Your task to perform on an android device: add a contact Image 0: 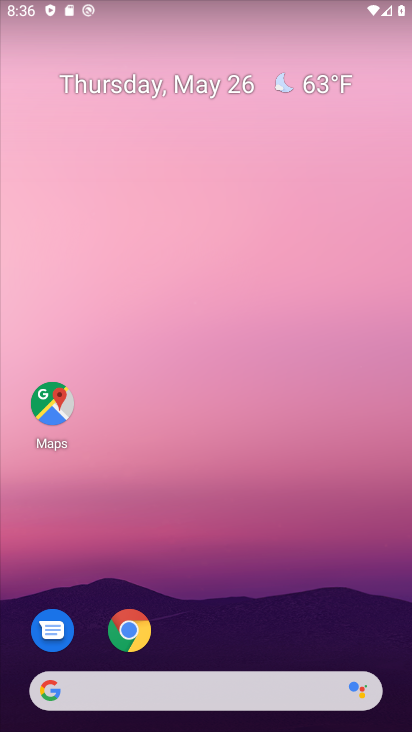
Step 0: drag from (289, 621) to (97, 86)
Your task to perform on an android device: add a contact Image 1: 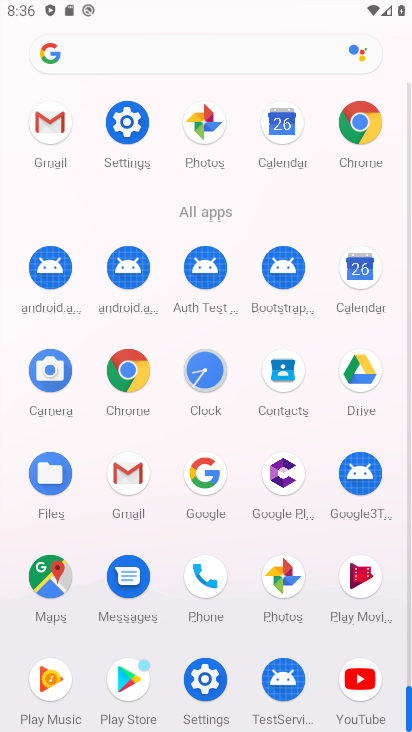
Step 1: click (281, 382)
Your task to perform on an android device: add a contact Image 2: 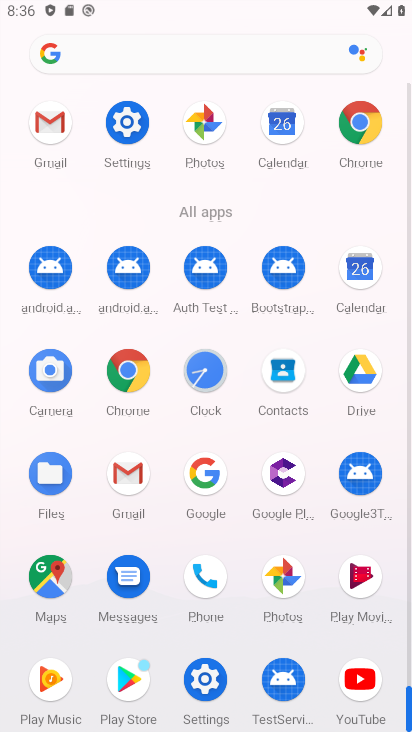
Step 2: click (282, 382)
Your task to perform on an android device: add a contact Image 3: 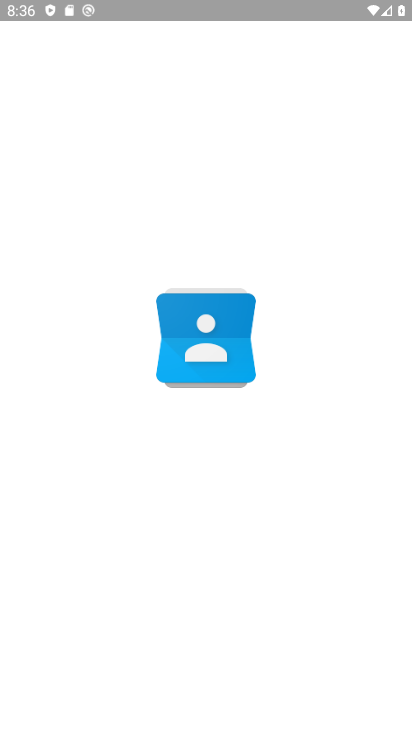
Step 3: click (282, 381)
Your task to perform on an android device: add a contact Image 4: 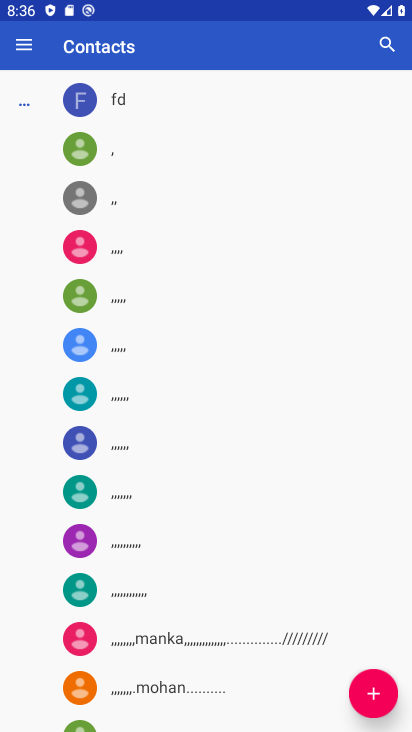
Step 4: click (370, 686)
Your task to perform on an android device: add a contact Image 5: 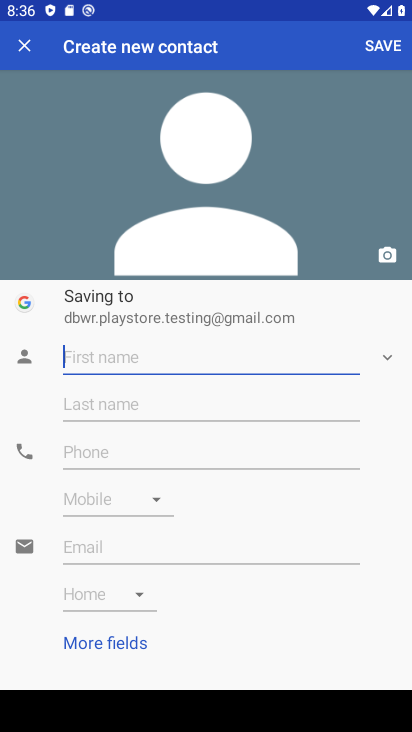
Step 5: type "vbbgchhtfh"
Your task to perform on an android device: add a contact Image 6: 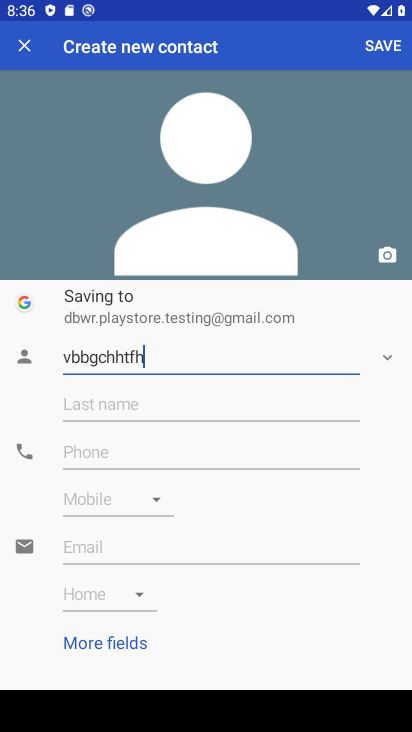
Step 6: click (92, 446)
Your task to perform on an android device: add a contact Image 7: 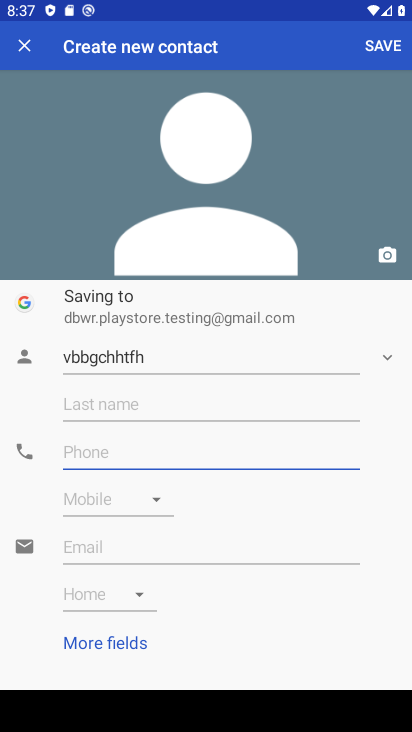
Step 7: type "8967896756"
Your task to perform on an android device: add a contact Image 8: 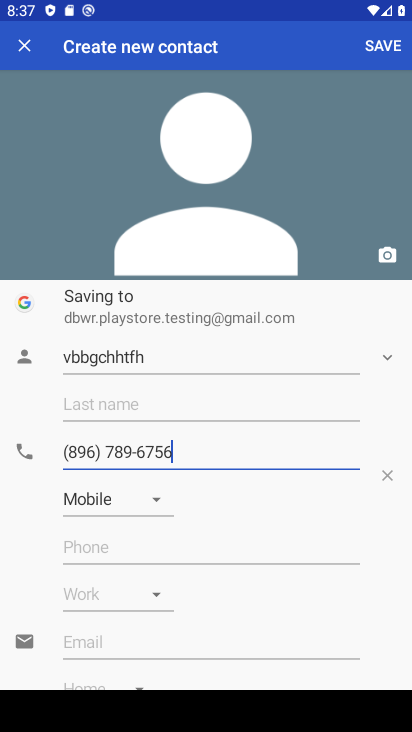
Step 8: click (367, 56)
Your task to perform on an android device: add a contact Image 9: 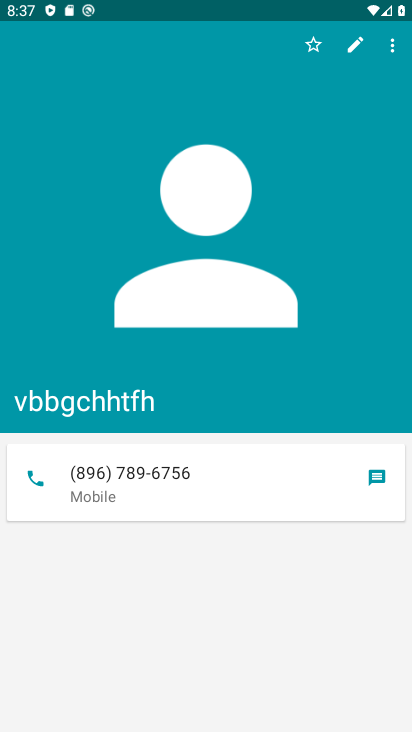
Step 9: task complete